Your task to perform on an android device: toggle show notifications on the lock screen Image 0: 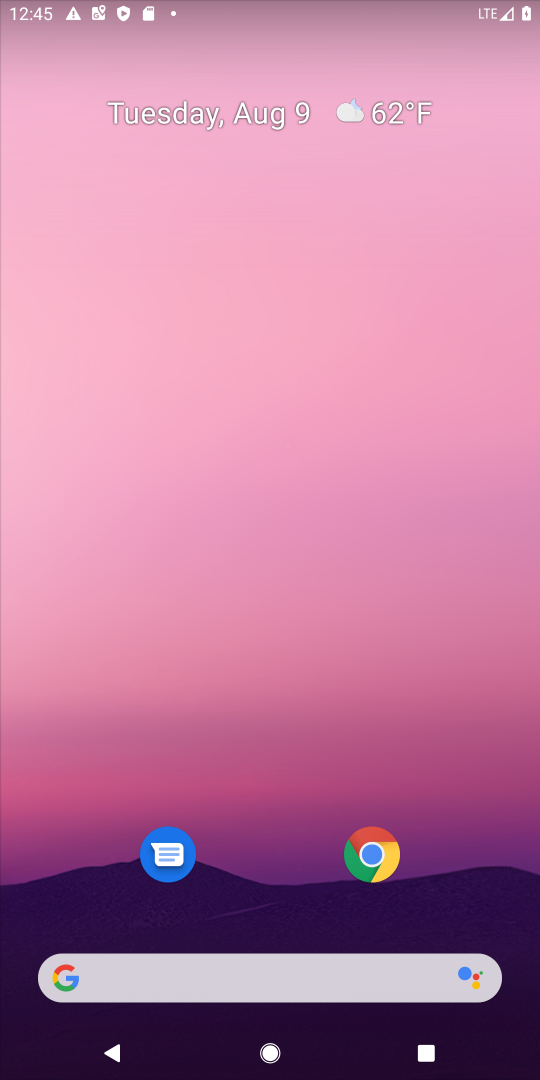
Step 0: drag from (275, 878) to (344, 51)
Your task to perform on an android device: toggle show notifications on the lock screen Image 1: 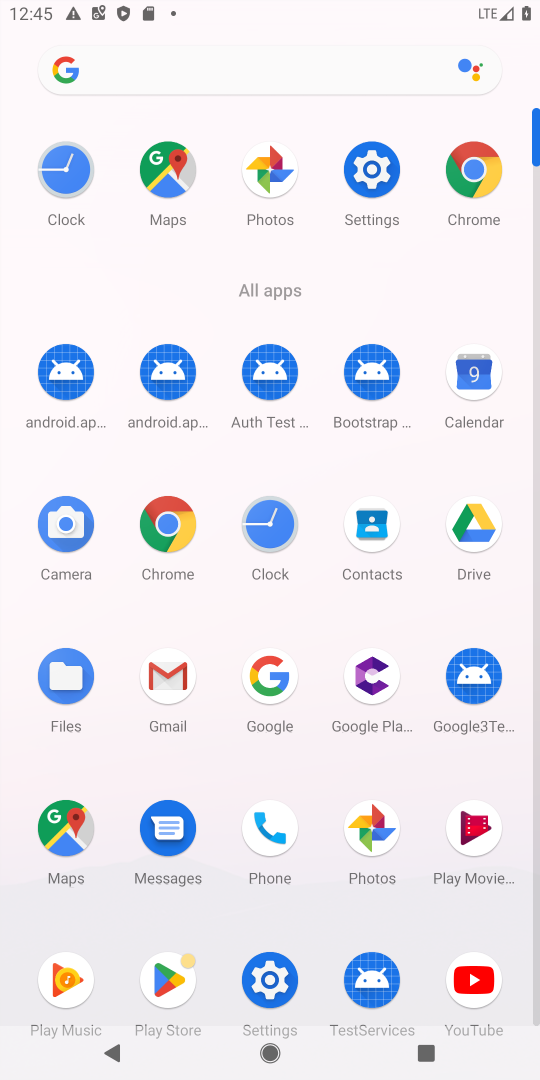
Step 1: click (369, 176)
Your task to perform on an android device: toggle show notifications on the lock screen Image 2: 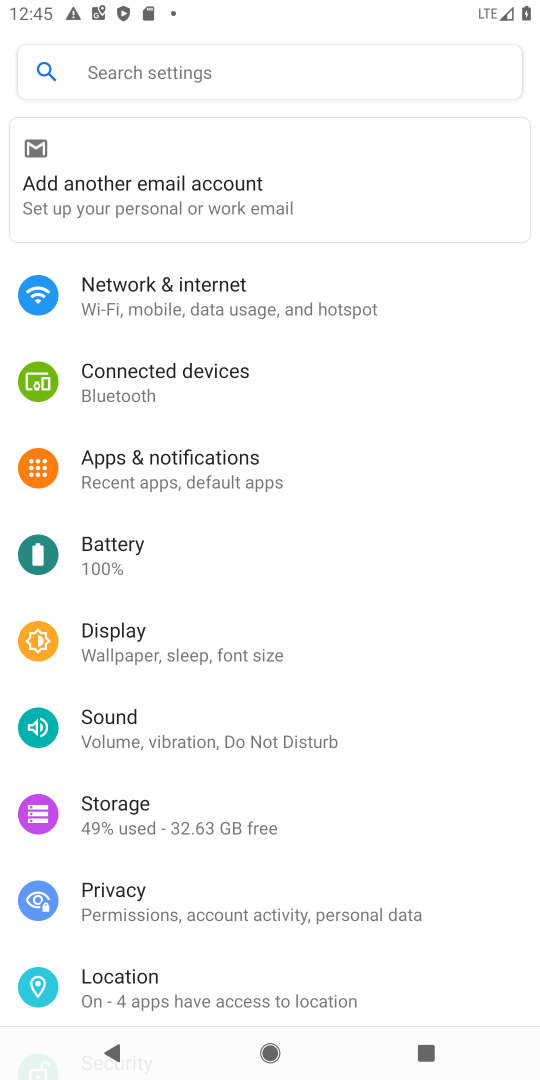
Step 2: click (239, 470)
Your task to perform on an android device: toggle show notifications on the lock screen Image 3: 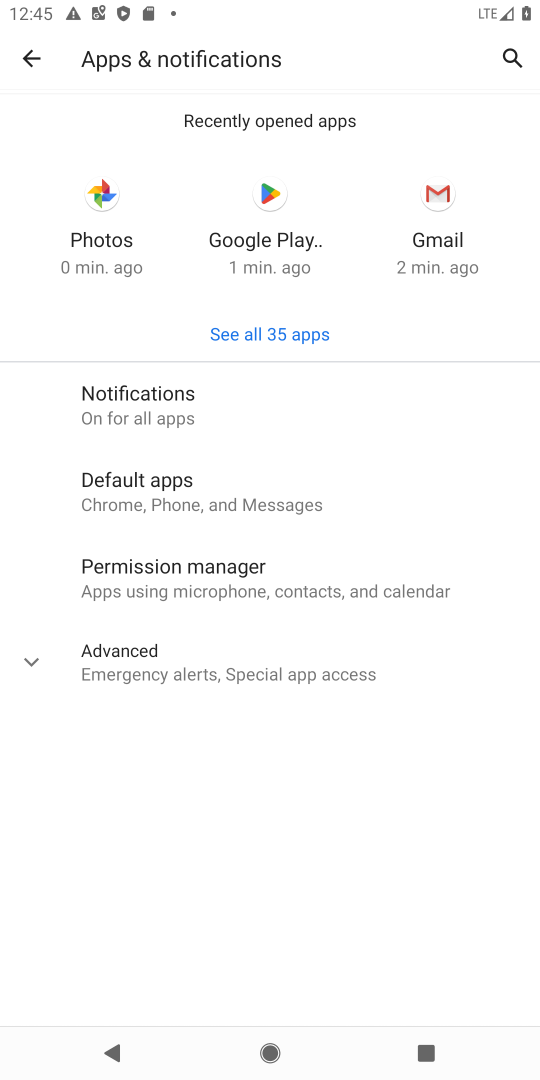
Step 3: click (191, 378)
Your task to perform on an android device: toggle show notifications on the lock screen Image 4: 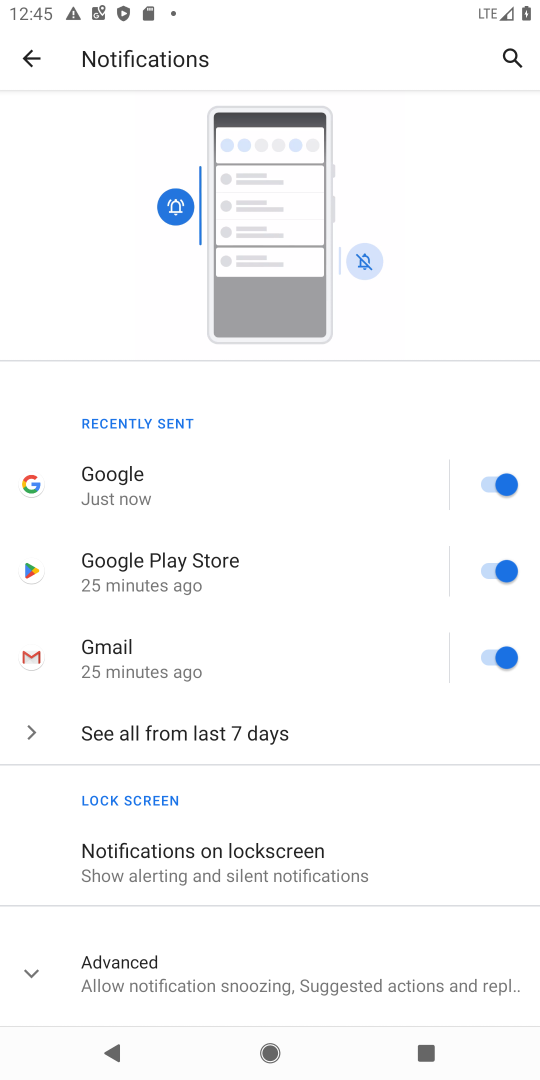
Step 4: click (267, 847)
Your task to perform on an android device: toggle show notifications on the lock screen Image 5: 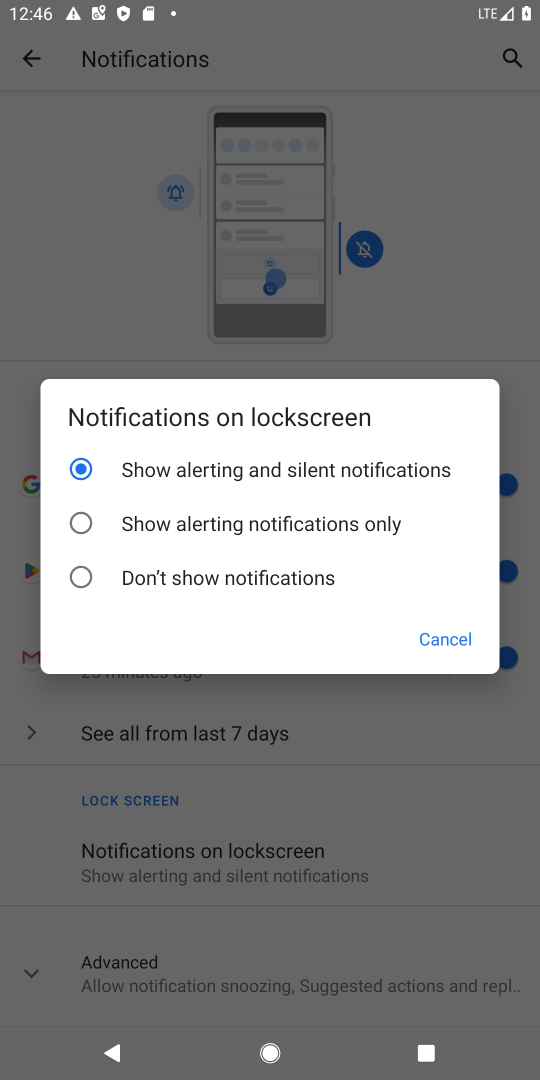
Step 5: click (116, 474)
Your task to perform on an android device: toggle show notifications on the lock screen Image 6: 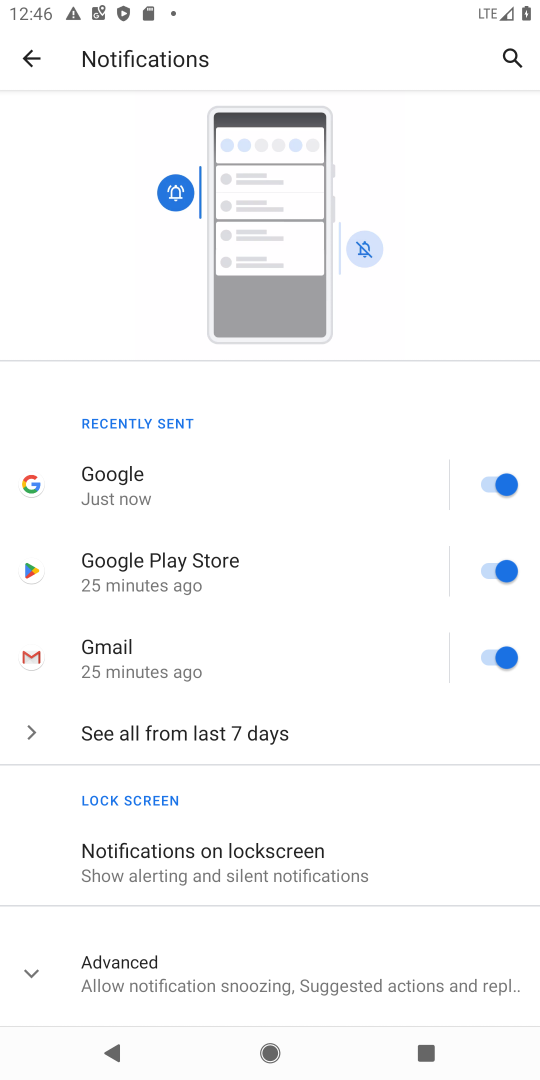
Step 6: task complete